Your task to perform on an android device: turn off sleep mode Image 0: 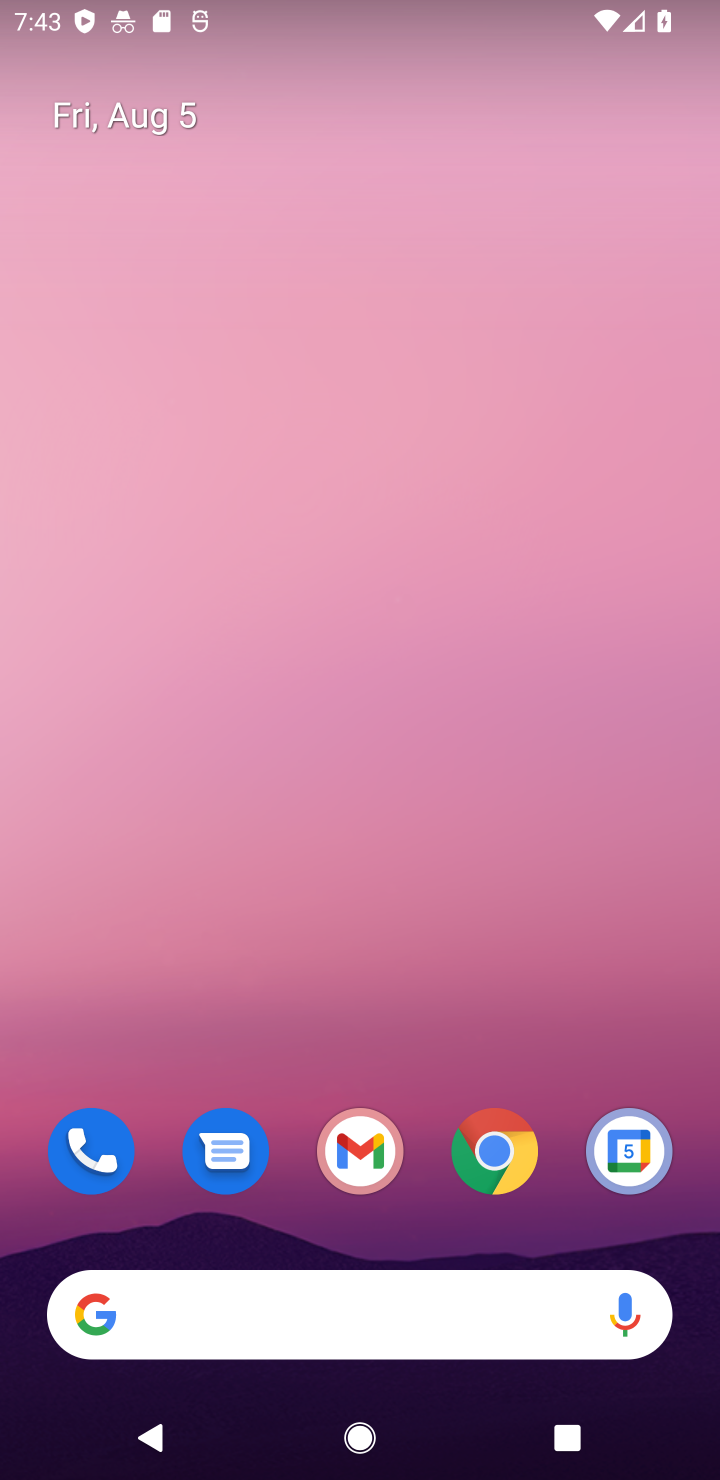
Step 0: drag from (365, 1244) to (383, 208)
Your task to perform on an android device: turn off sleep mode Image 1: 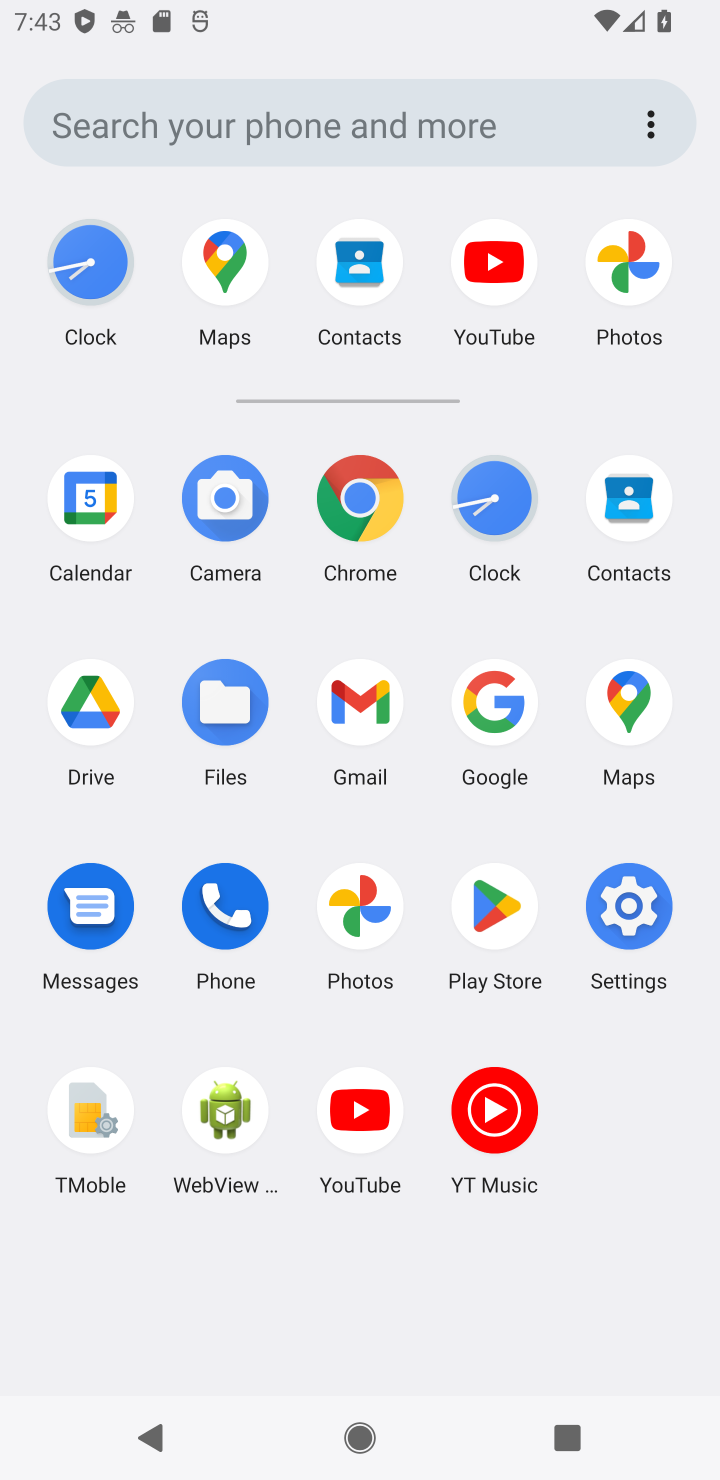
Step 1: click (633, 936)
Your task to perform on an android device: turn off sleep mode Image 2: 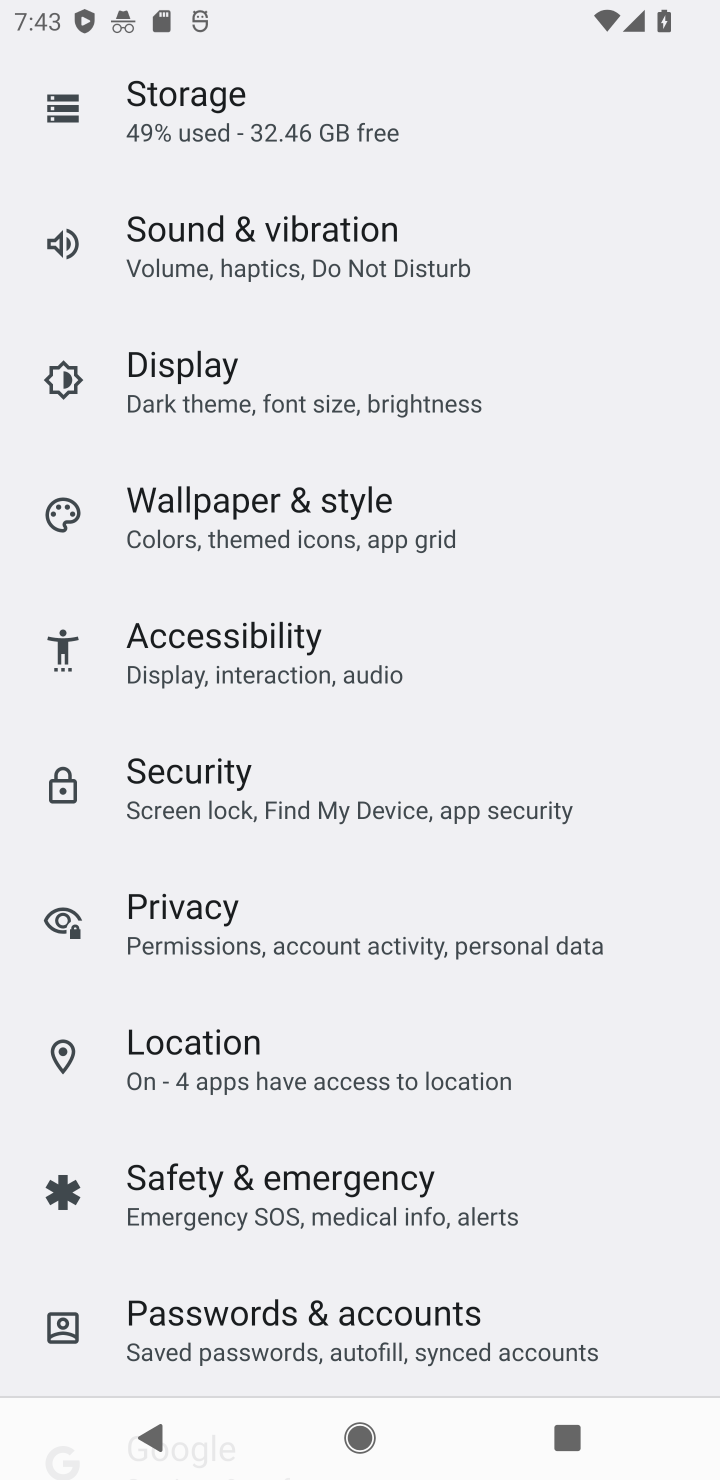
Step 2: click (186, 356)
Your task to perform on an android device: turn off sleep mode Image 3: 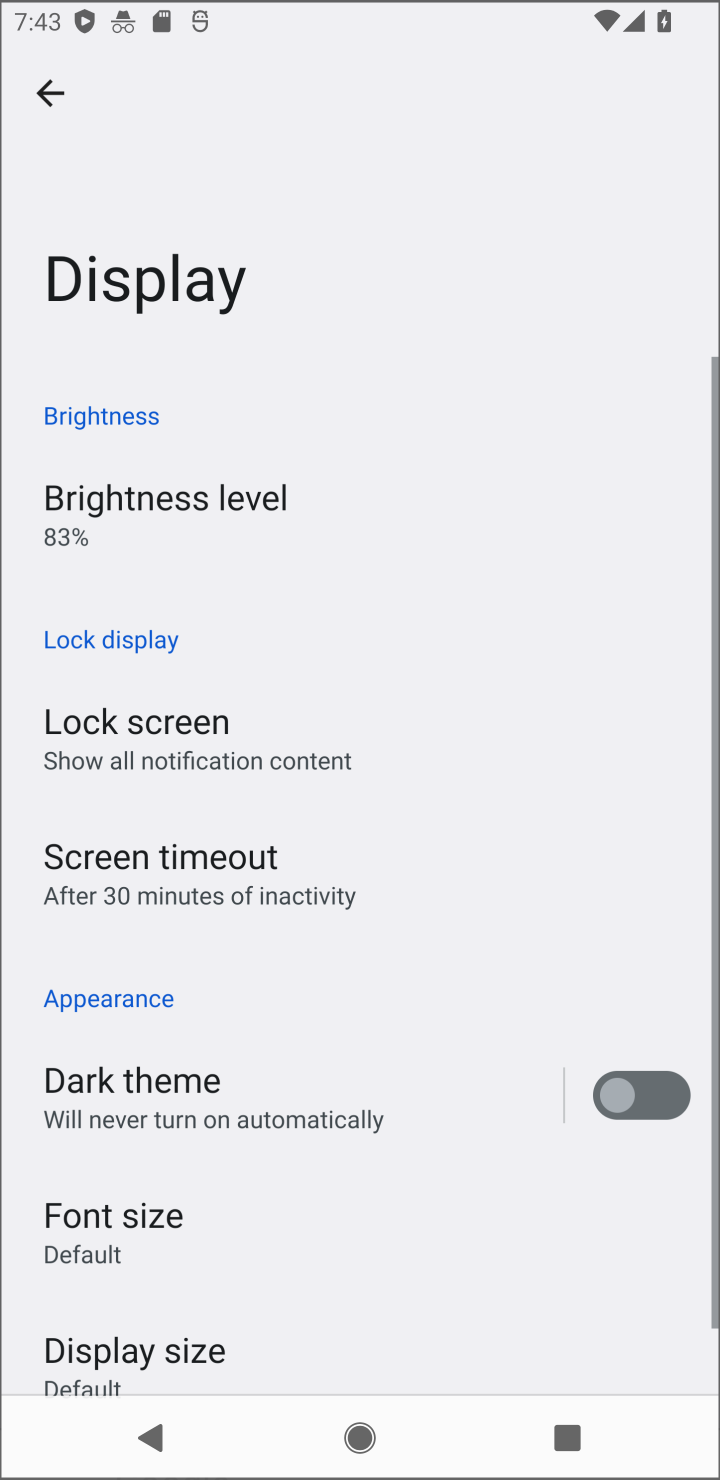
Step 3: task complete